Your task to perform on an android device: check android version Image 0: 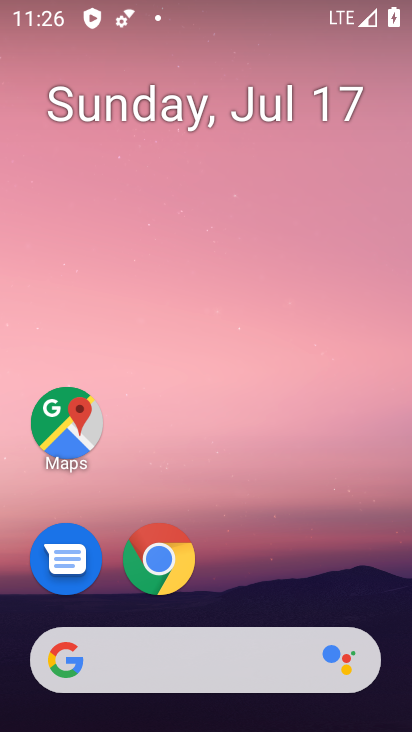
Step 0: drag from (251, 516) to (258, 13)
Your task to perform on an android device: check android version Image 1: 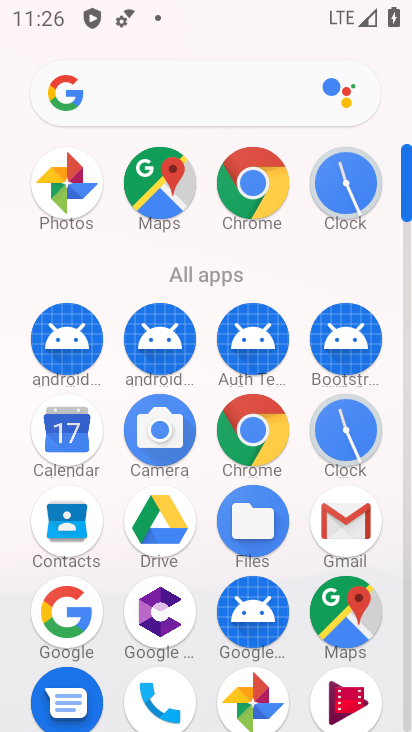
Step 1: drag from (212, 645) to (315, 0)
Your task to perform on an android device: check android version Image 2: 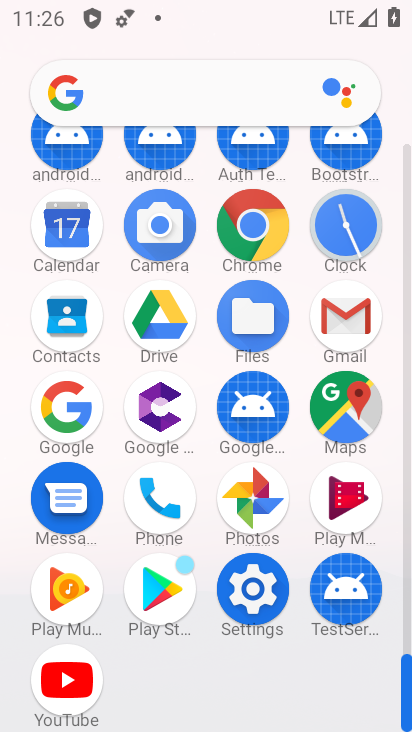
Step 2: click (260, 585)
Your task to perform on an android device: check android version Image 3: 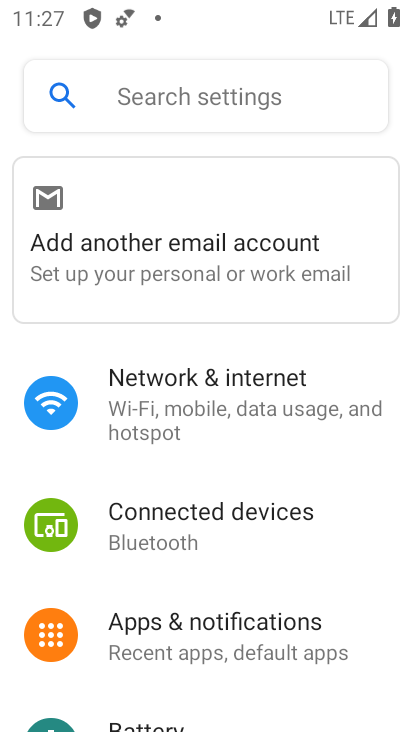
Step 3: drag from (199, 631) to (309, 29)
Your task to perform on an android device: check android version Image 4: 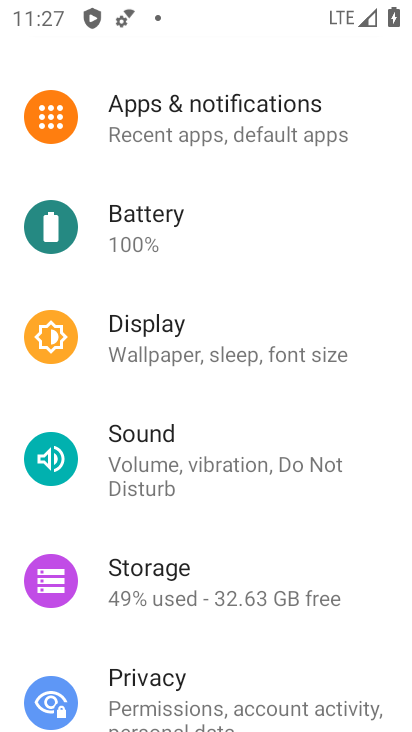
Step 4: drag from (257, 244) to (289, 65)
Your task to perform on an android device: check android version Image 5: 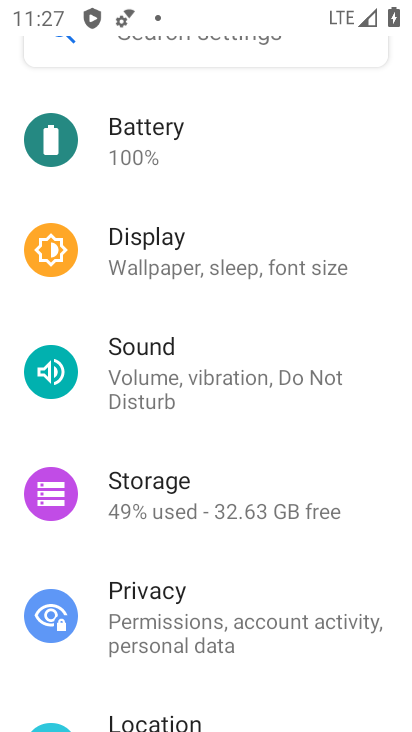
Step 5: drag from (262, 2) to (292, 53)
Your task to perform on an android device: check android version Image 6: 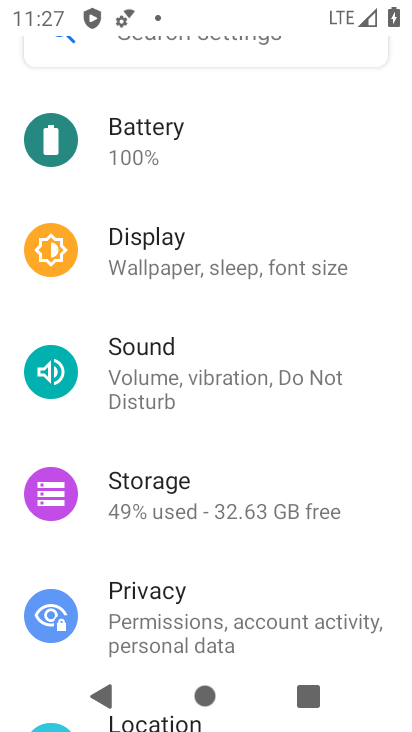
Step 6: drag from (227, 628) to (362, 10)
Your task to perform on an android device: check android version Image 7: 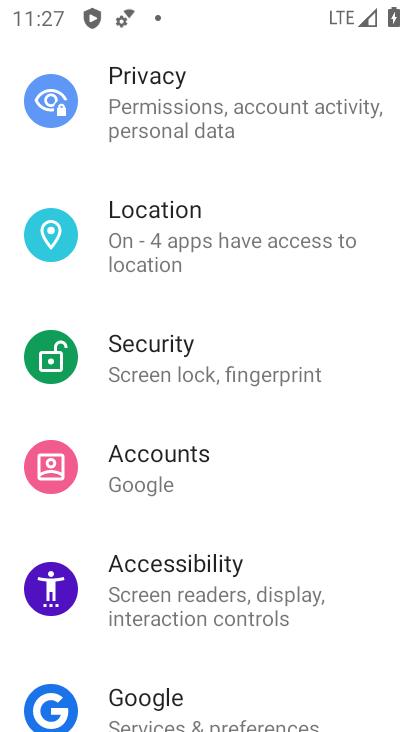
Step 7: drag from (98, 625) to (177, 150)
Your task to perform on an android device: check android version Image 8: 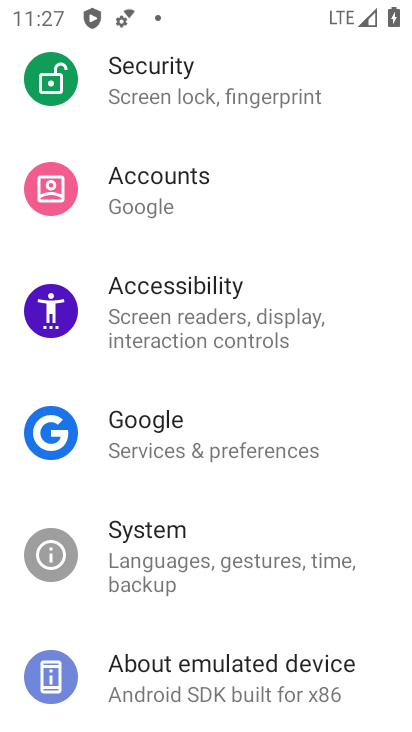
Step 8: drag from (182, 646) to (274, 25)
Your task to perform on an android device: check android version Image 9: 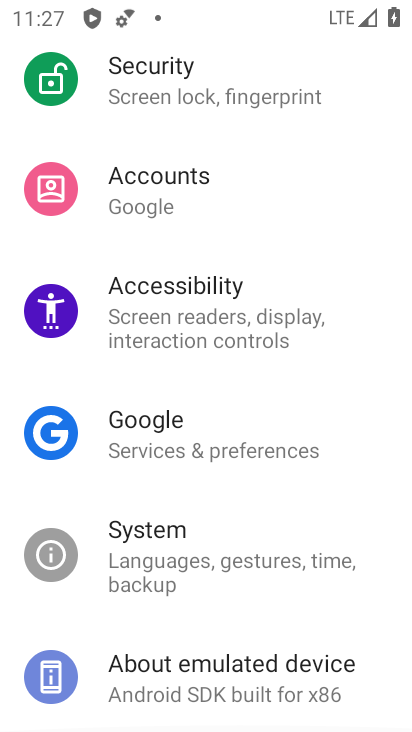
Step 9: click (226, 664)
Your task to perform on an android device: check android version Image 10: 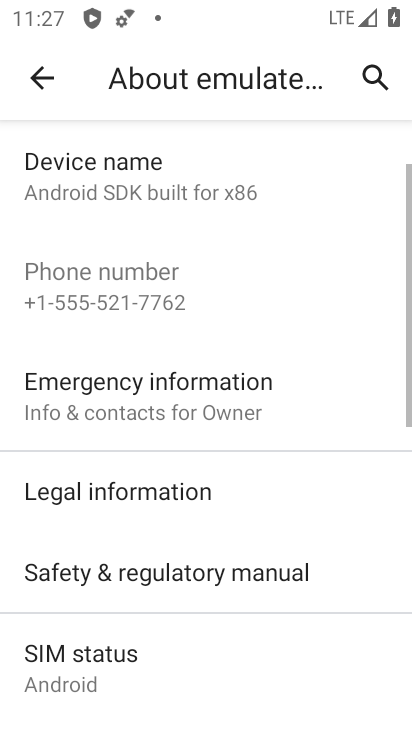
Step 10: task complete